Your task to perform on an android device: Toggle the flashlight Image 0: 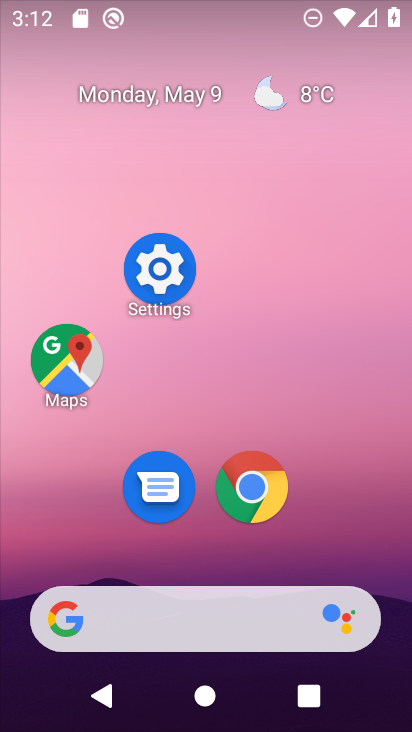
Step 0: drag from (305, 8) to (310, 656)
Your task to perform on an android device: Toggle the flashlight Image 1: 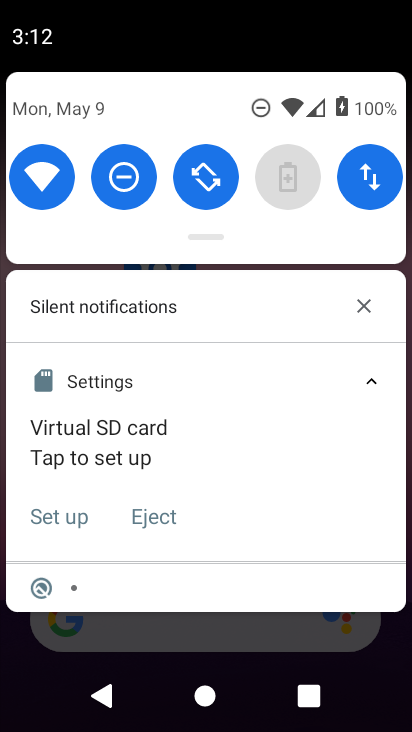
Step 1: drag from (247, 224) to (262, 698)
Your task to perform on an android device: Toggle the flashlight Image 2: 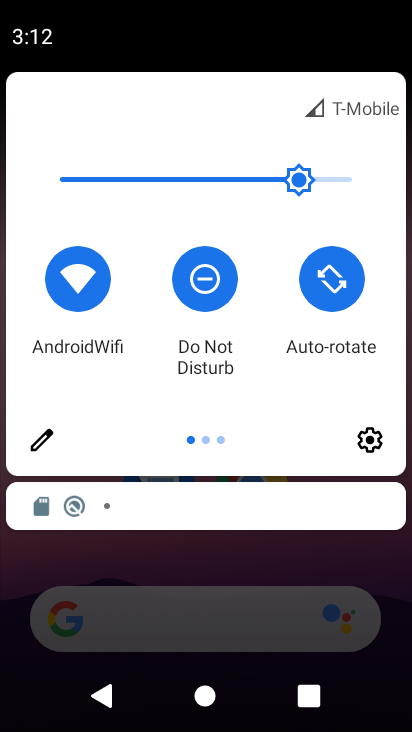
Step 2: click (32, 436)
Your task to perform on an android device: Toggle the flashlight Image 3: 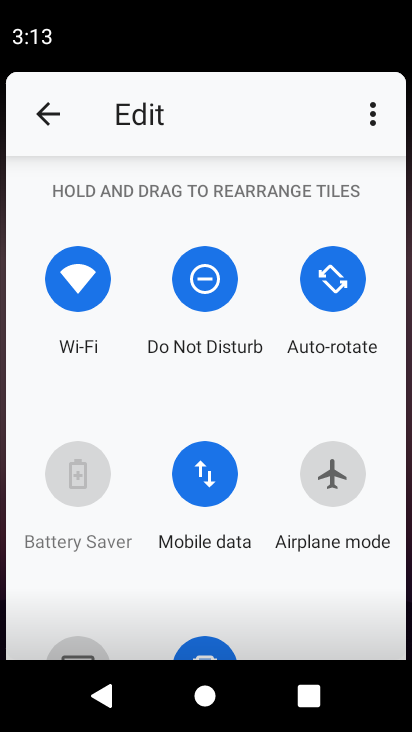
Step 3: task complete